Your task to perform on an android device: Open the gallery Image 0: 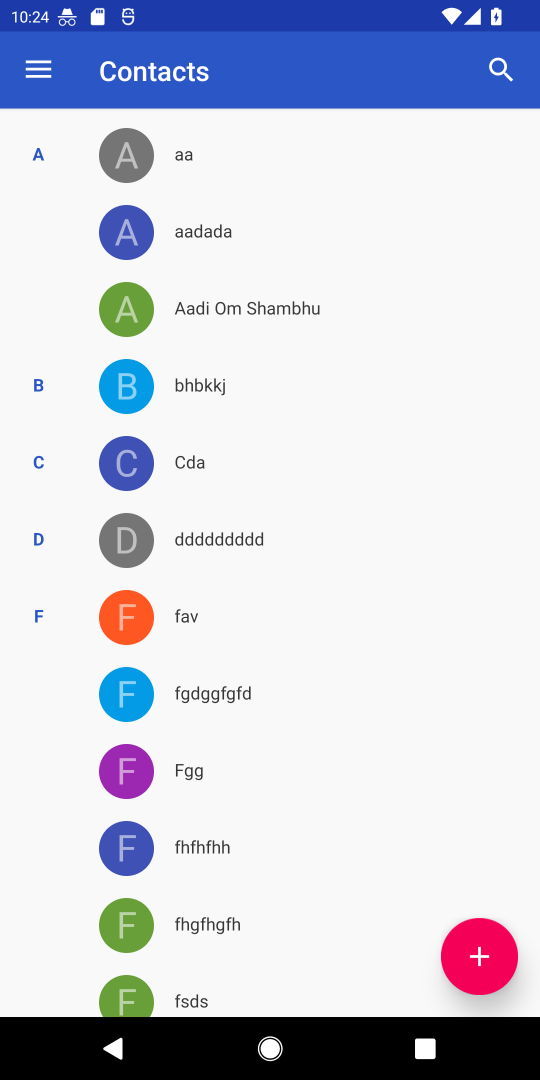
Step 0: press home button
Your task to perform on an android device: Open the gallery Image 1: 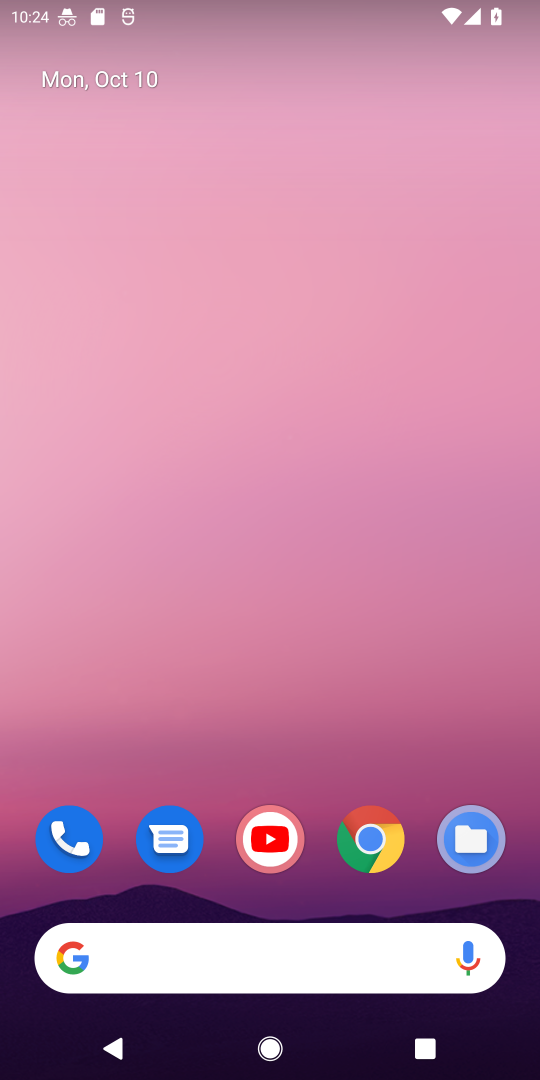
Step 1: drag from (345, 629) to (175, 4)
Your task to perform on an android device: Open the gallery Image 2: 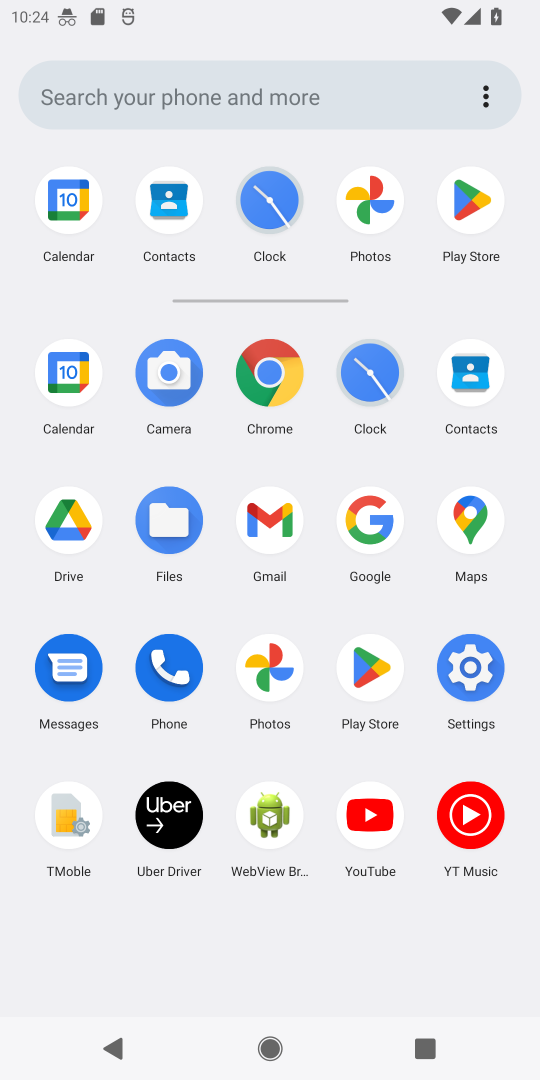
Step 2: click (173, 535)
Your task to perform on an android device: Open the gallery Image 3: 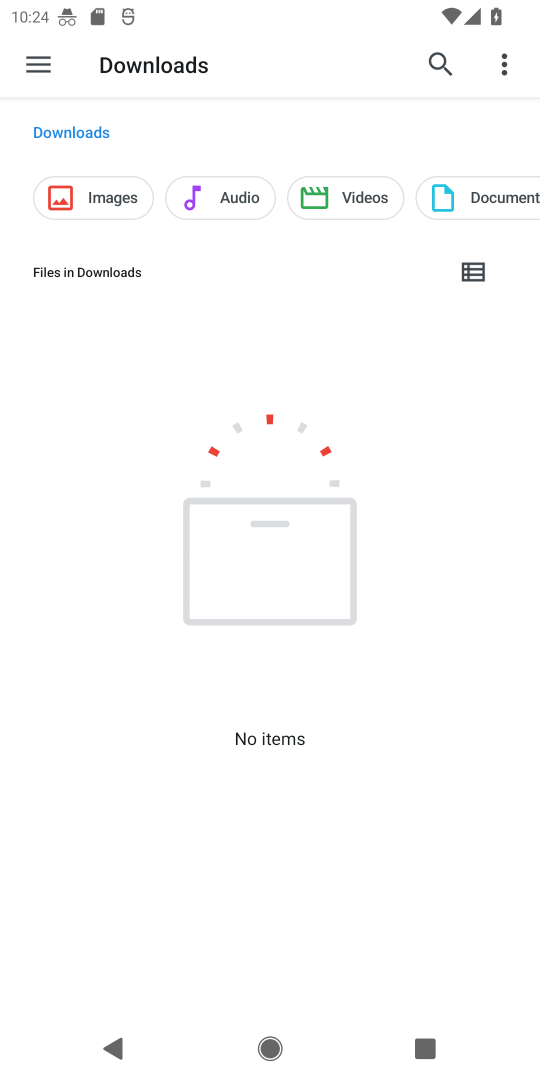
Step 3: task complete